Your task to perform on an android device: Turn on the flashlight Image 0: 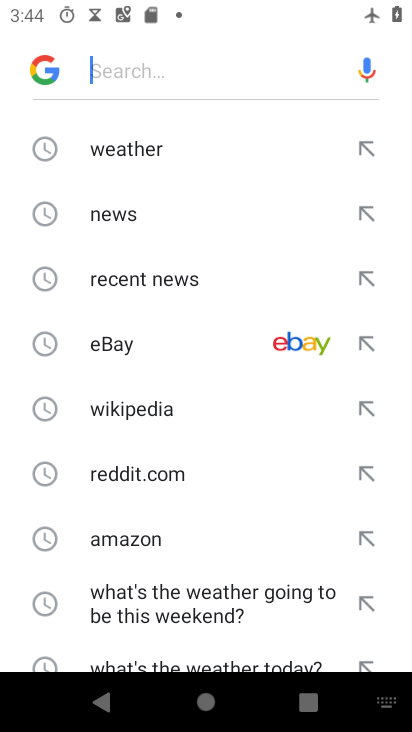
Step 0: press home button
Your task to perform on an android device: Turn on the flashlight Image 1: 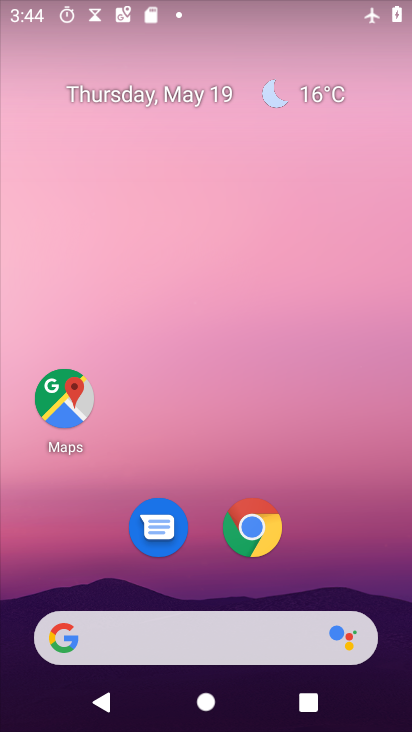
Step 1: task complete